Your task to perform on an android device: Add "sony triple a" to the cart on newegg Image 0: 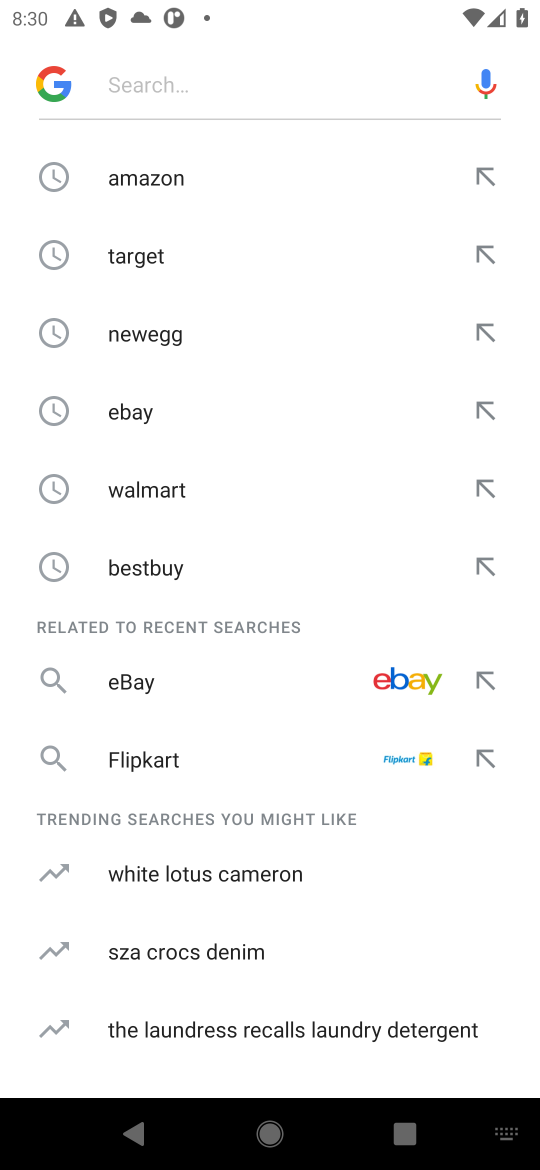
Step 0: click (314, 336)
Your task to perform on an android device: Add "sony triple a" to the cart on newegg Image 1: 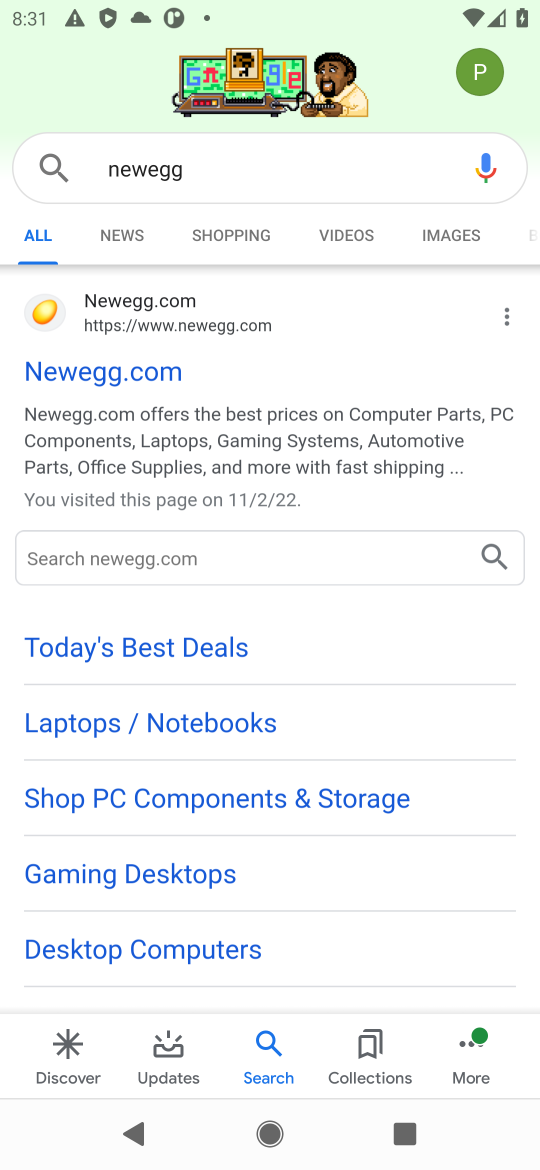
Step 1: click (186, 375)
Your task to perform on an android device: Add "sony triple a" to the cart on newegg Image 2: 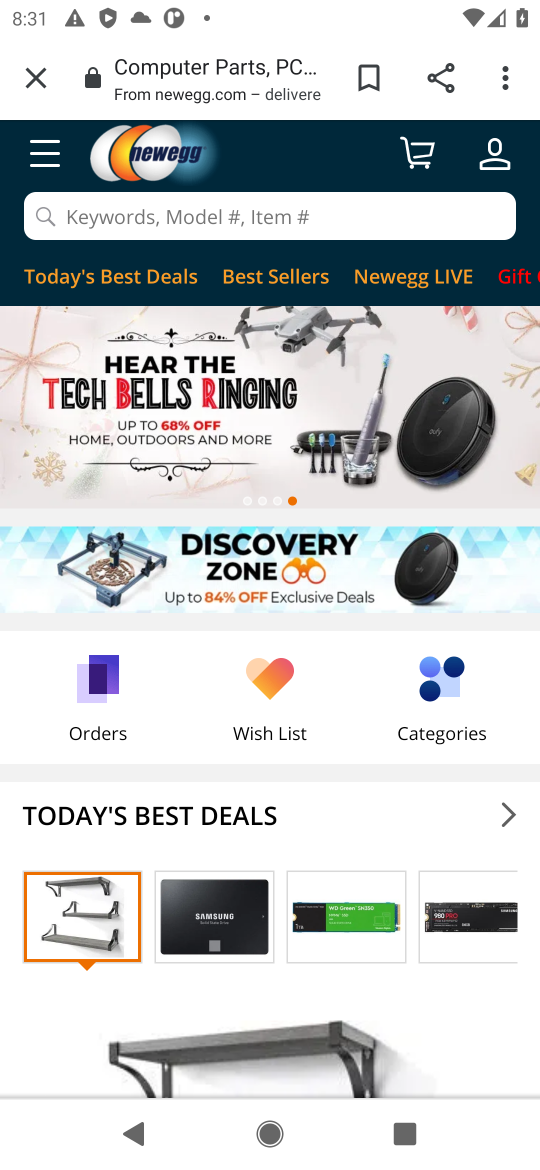
Step 2: task complete